Your task to perform on an android device: View the shopping cart on ebay. Search for logitech g933 on ebay, select the first entry, and add it to the cart. Image 0: 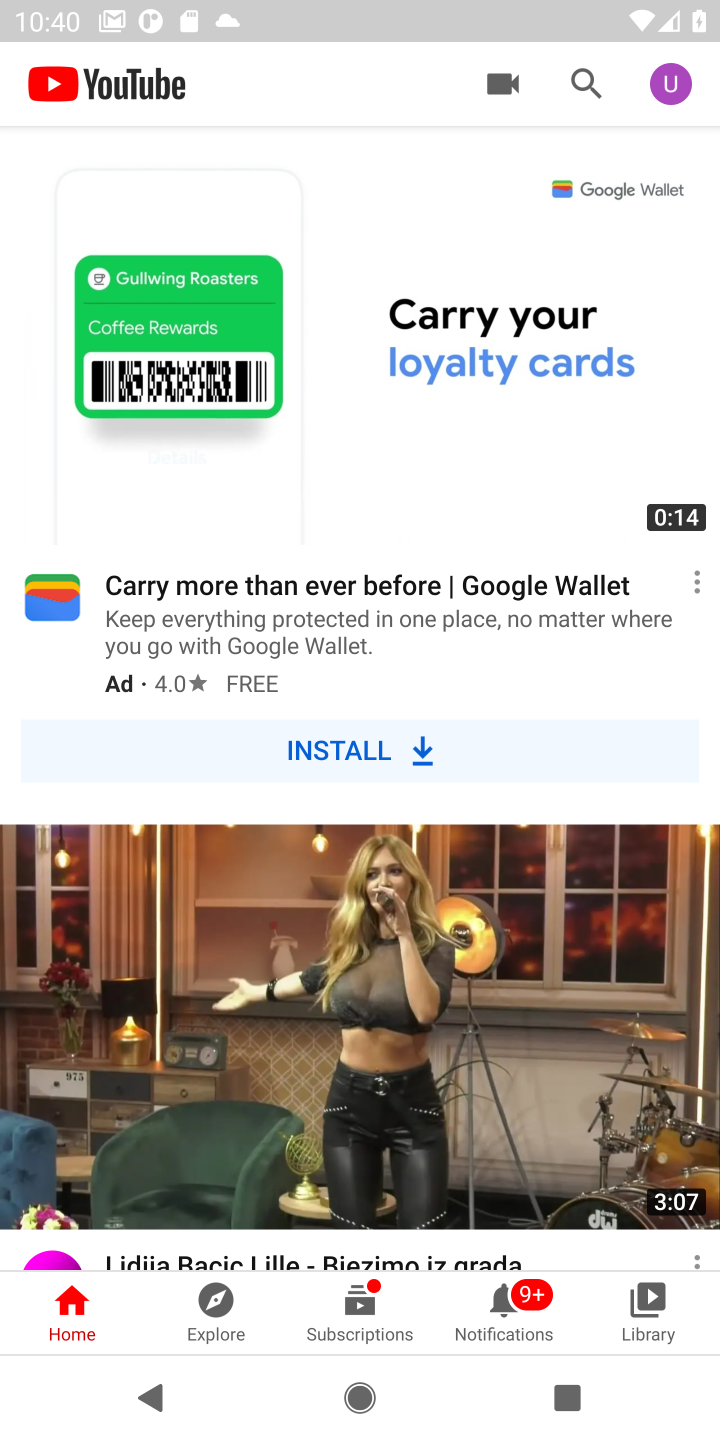
Step 0: drag from (419, 1095) to (439, 664)
Your task to perform on an android device: View the shopping cart on ebay. Search for logitech g933 on ebay, select the first entry, and add it to the cart. Image 1: 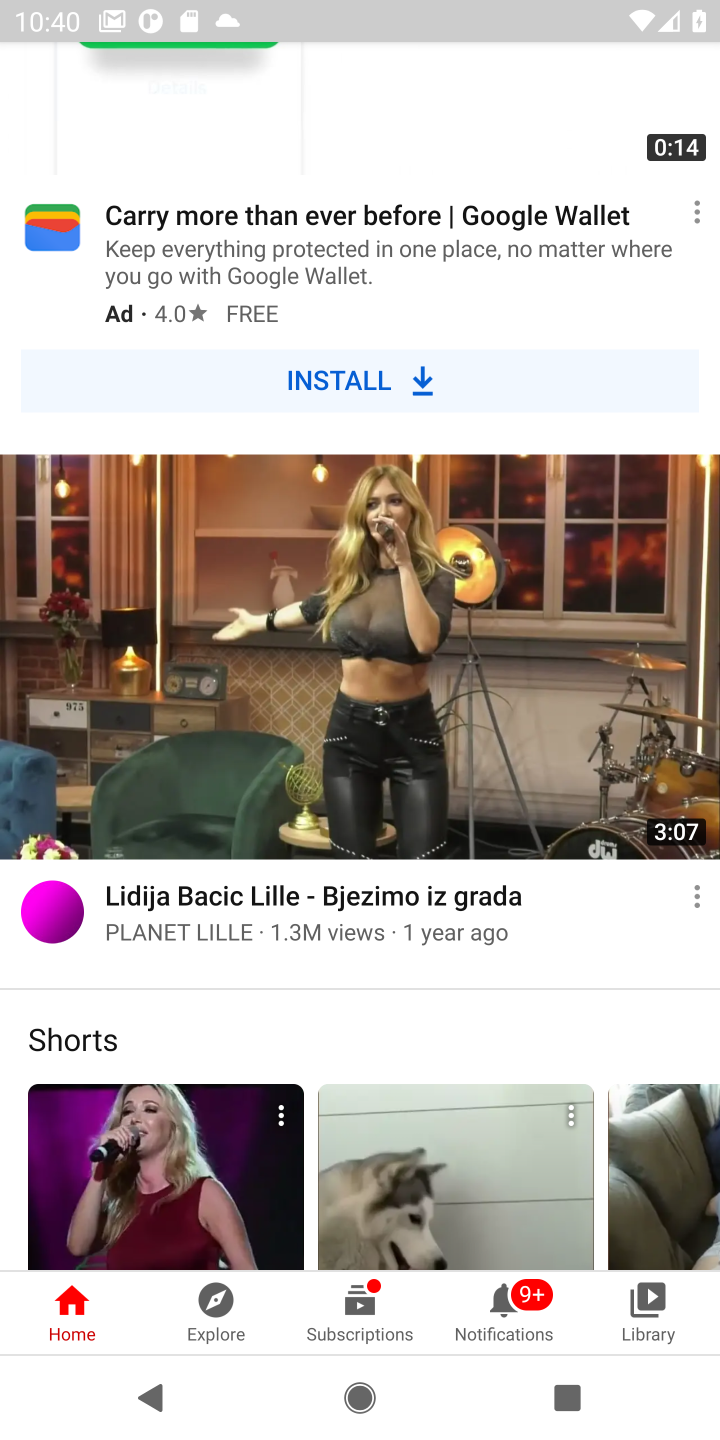
Step 1: press home button
Your task to perform on an android device: View the shopping cart on ebay. Search for logitech g933 on ebay, select the first entry, and add it to the cart. Image 2: 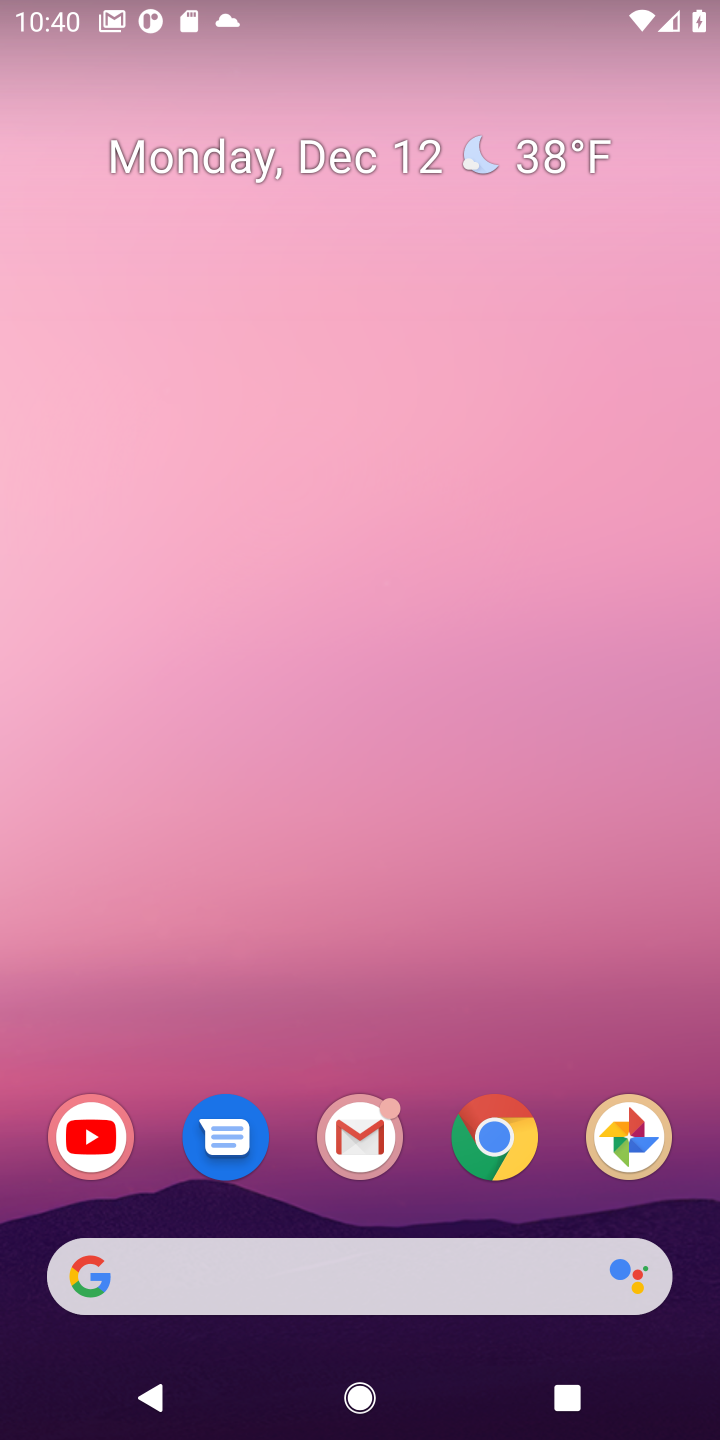
Step 2: click (348, 1248)
Your task to perform on an android device: View the shopping cart on ebay. Search for logitech g933 on ebay, select the first entry, and add it to the cart. Image 3: 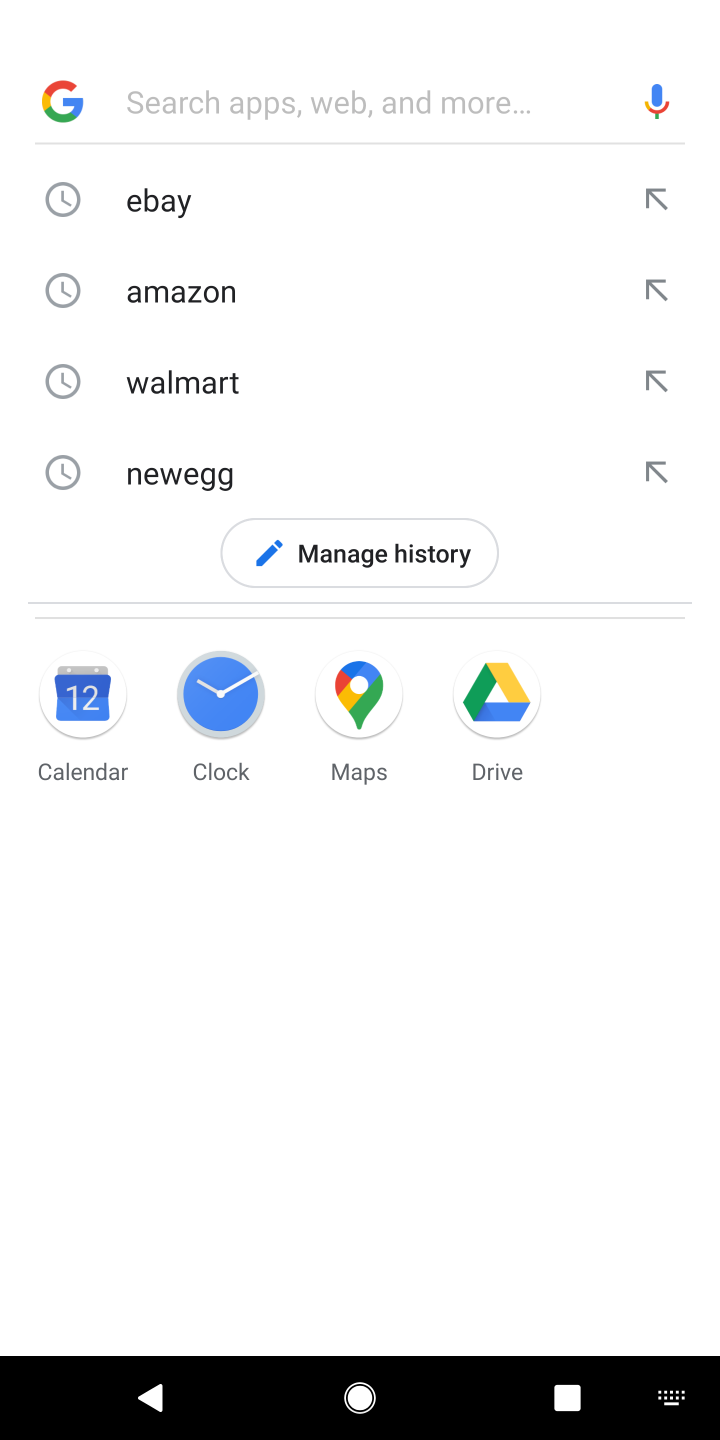
Step 3: click (238, 200)
Your task to perform on an android device: View the shopping cart on ebay. Search for logitech g933 on ebay, select the first entry, and add it to the cart. Image 4: 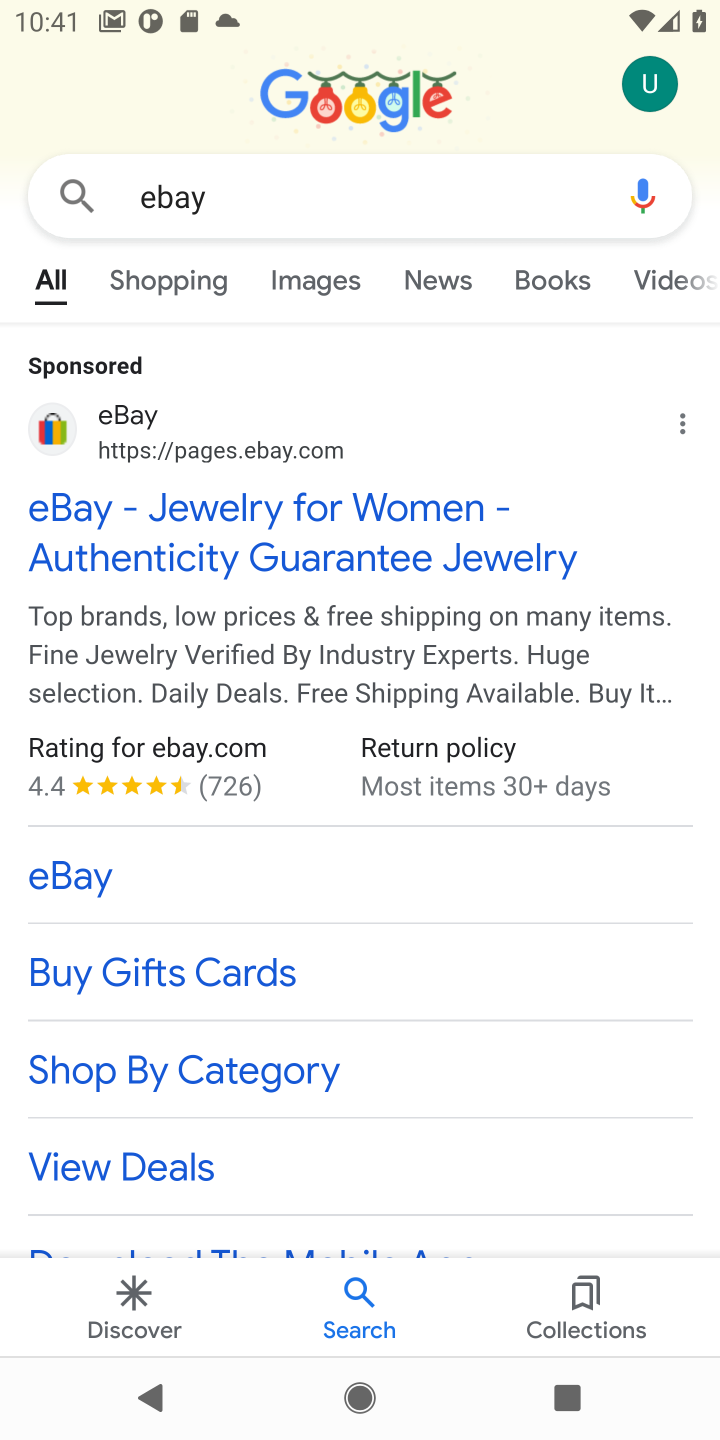
Step 4: click (311, 493)
Your task to perform on an android device: View the shopping cart on ebay. Search for logitech g933 on ebay, select the first entry, and add it to the cart. Image 5: 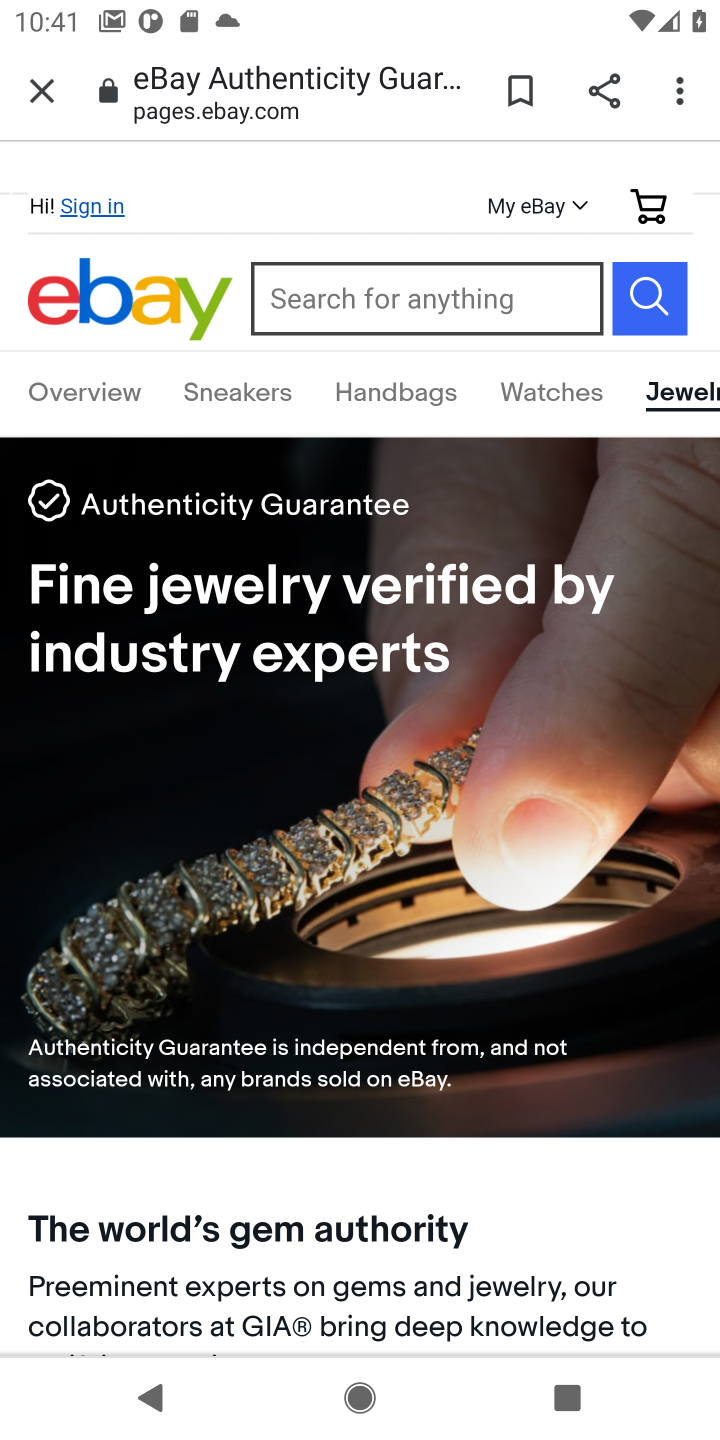
Step 5: click (97, 393)
Your task to perform on an android device: View the shopping cart on ebay. Search for logitech g933 on ebay, select the first entry, and add it to the cart. Image 6: 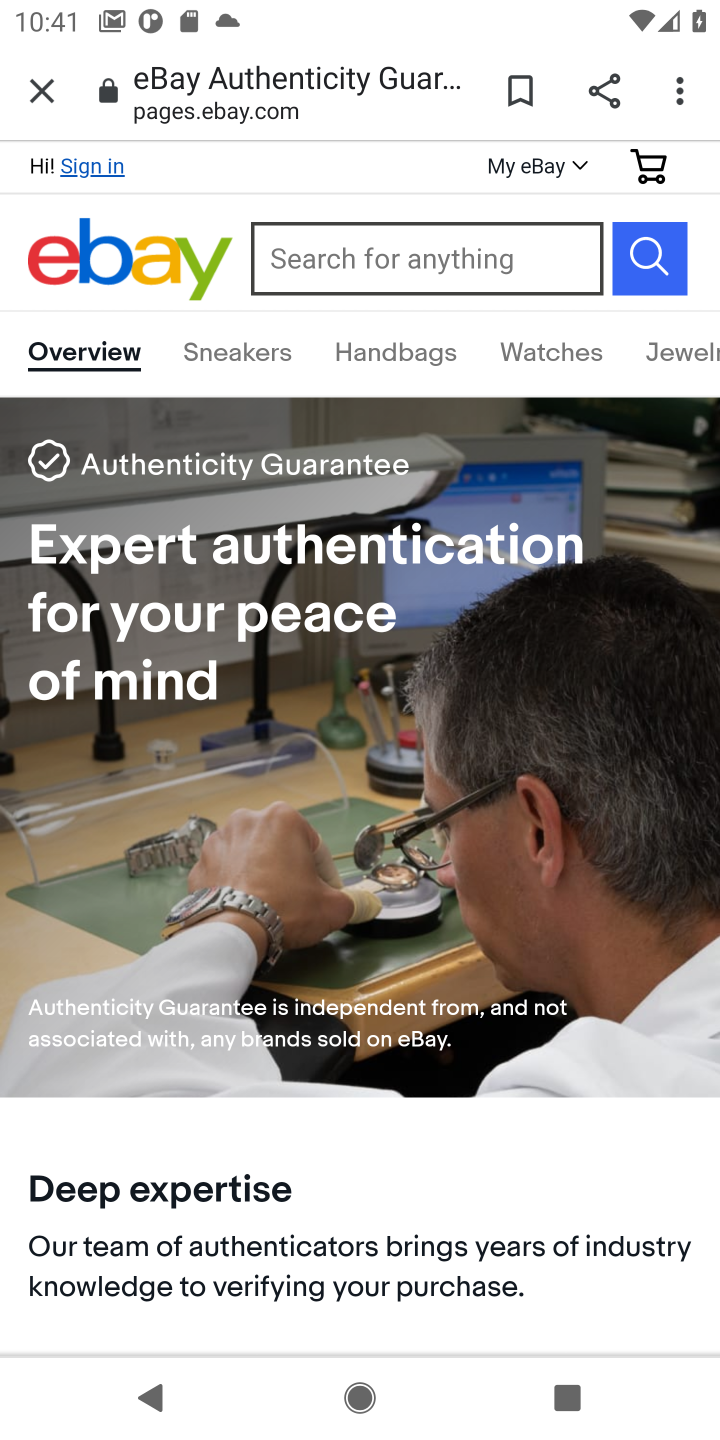
Step 6: click (366, 287)
Your task to perform on an android device: View the shopping cart on ebay. Search for logitech g933 on ebay, select the first entry, and add it to the cart. Image 7: 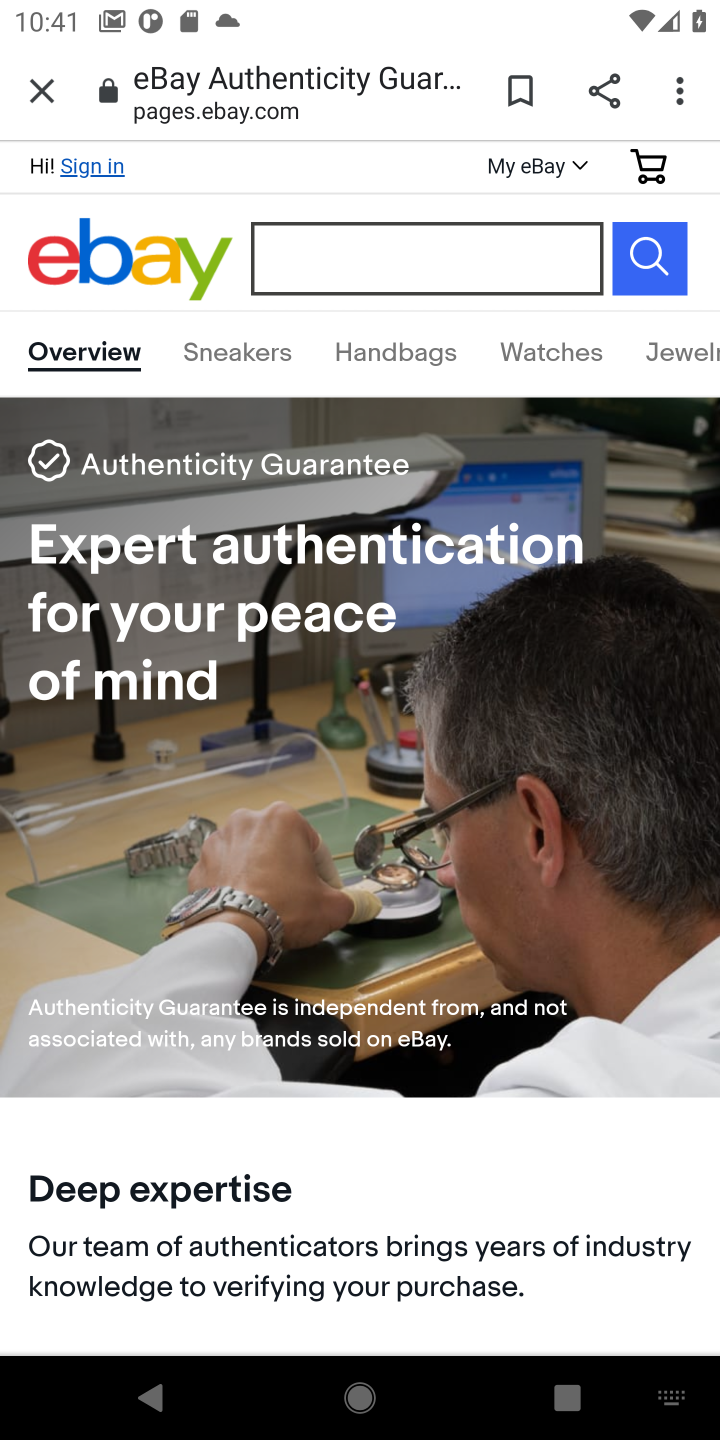
Step 7: type "logitech g933"
Your task to perform on an android device: View the shopping cart on ebay. Search for logitech g933 on ebay, select the first entry, and add it to the cart. Image 8: 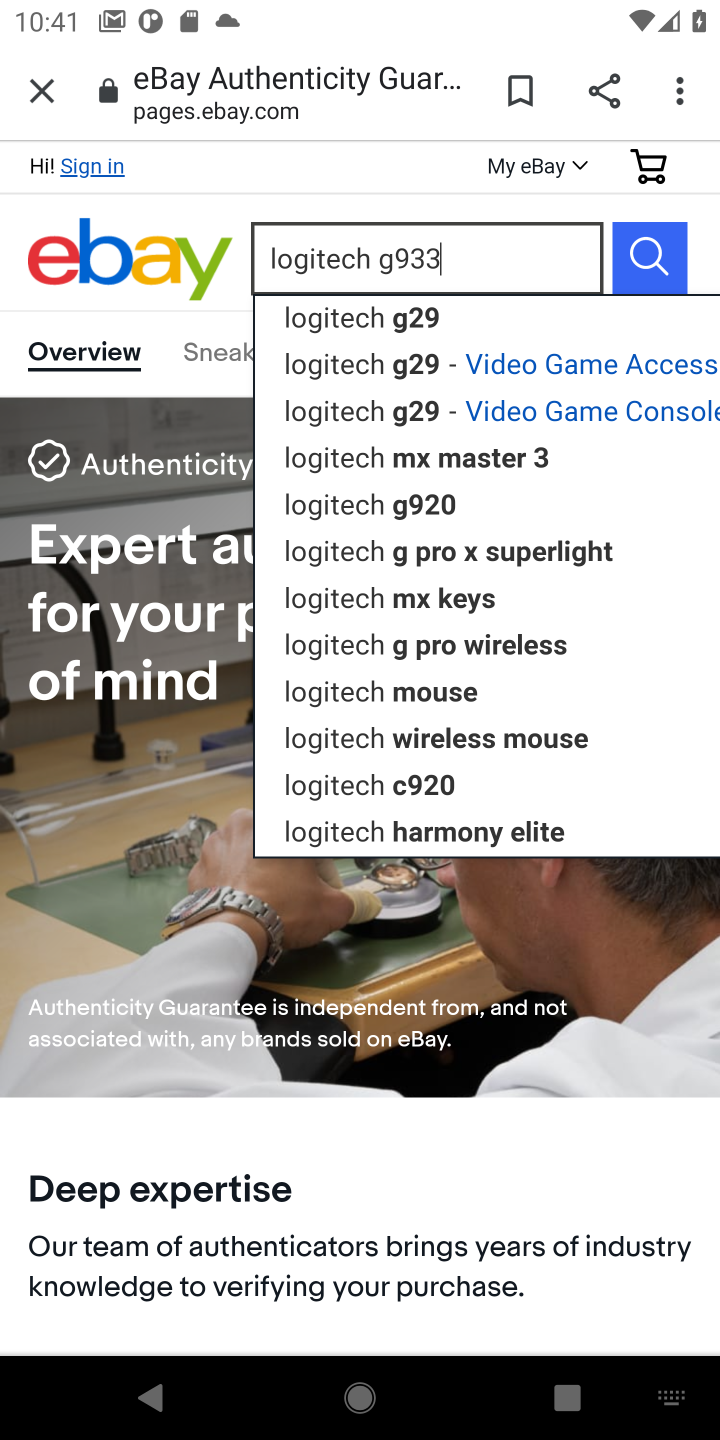
Step 8: click (643, 258)
Your task to perform on an android device: View the shopping cart on ebay. Search for logitech g933 on ebay, select the first entry, and add it to the cart. Image 9: 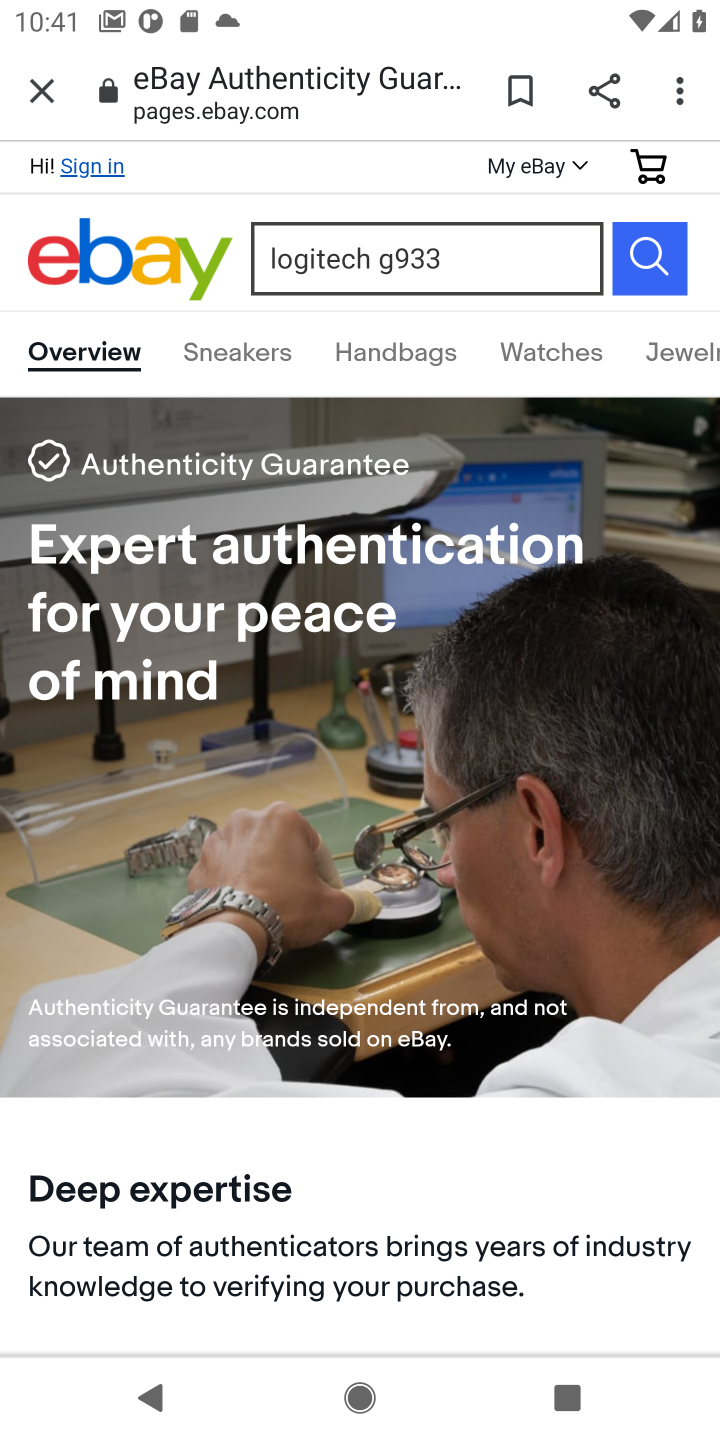
Step 9: click (642, 275)
Your task to perform on an android device: View the shopping cart on ebay. Search for logitech g933 on ebay, select the first entry, and add it to the cart. Image 10: 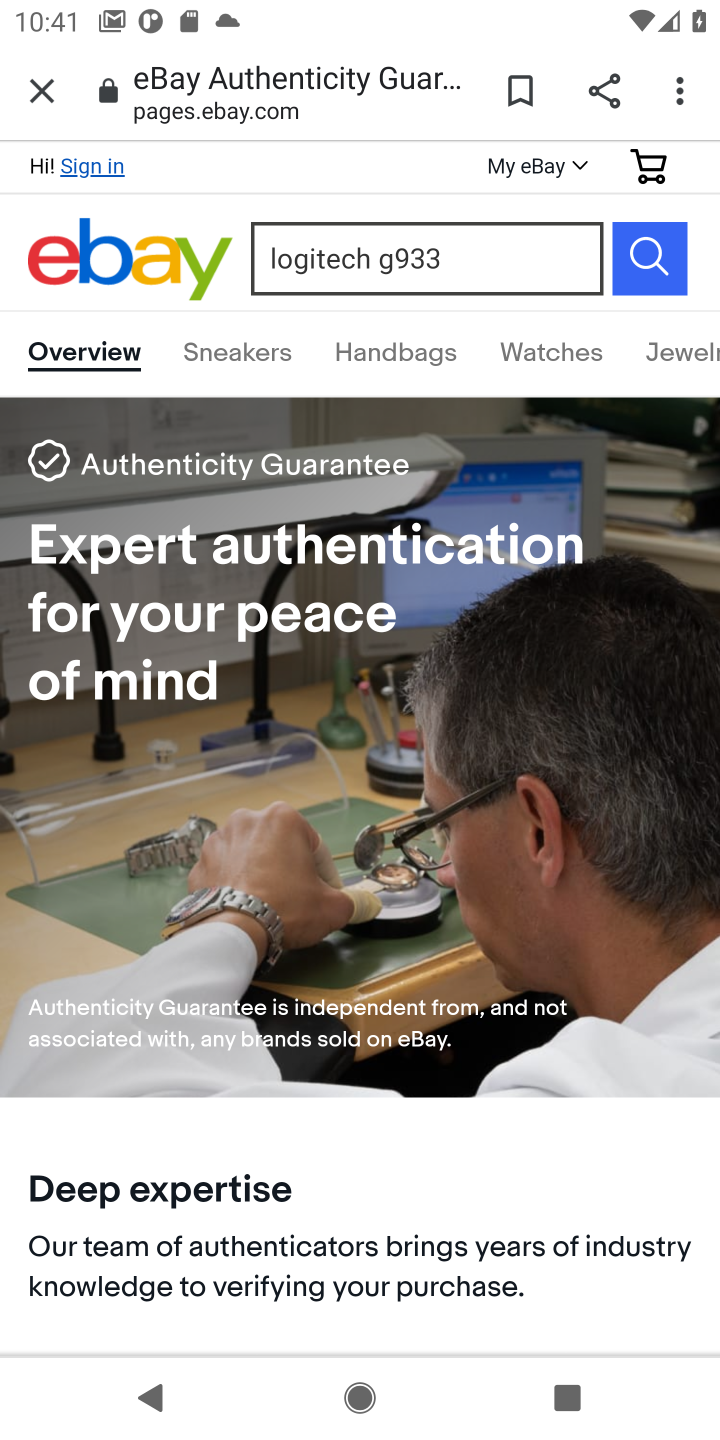
Step 10: task complete